Your task to perform on an android device: Do I have any events tomorrow? Image 0: 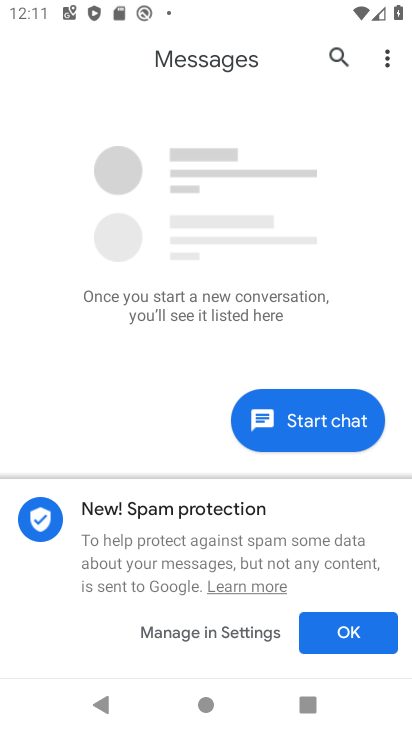
Step 0: press home button
Your task to perform on an android device: Do I have any events tomorrow? Image 1: 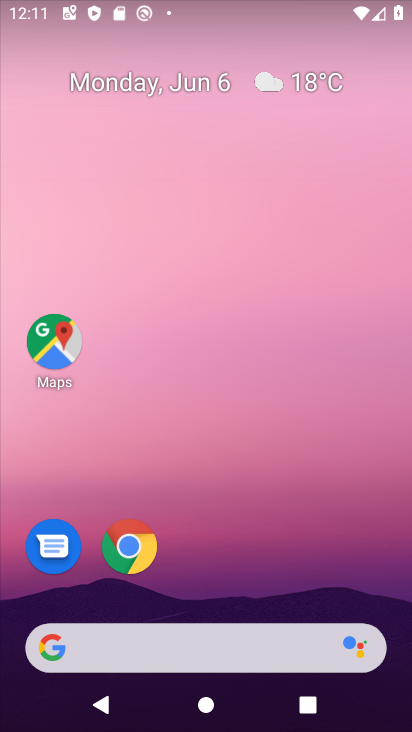
Step 1: drag from (146, 596) to (150, 11)
Your task to perform on an android device: Do I have any events tomorrow? Image 2: 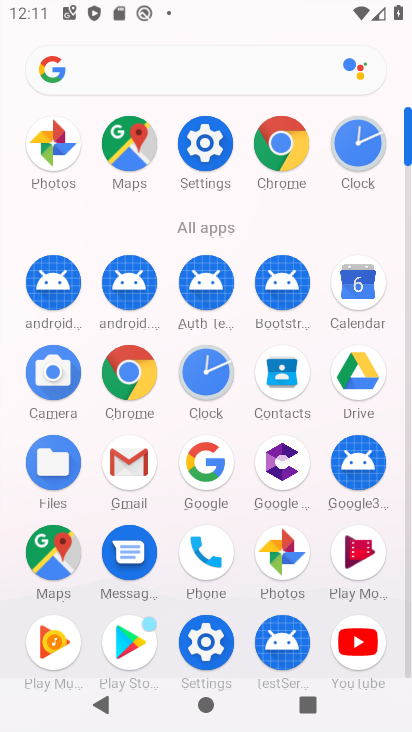
Step 2: click (364, 296)
Your task to perform on an android device: Do I have any events tomorrow? Image 3: 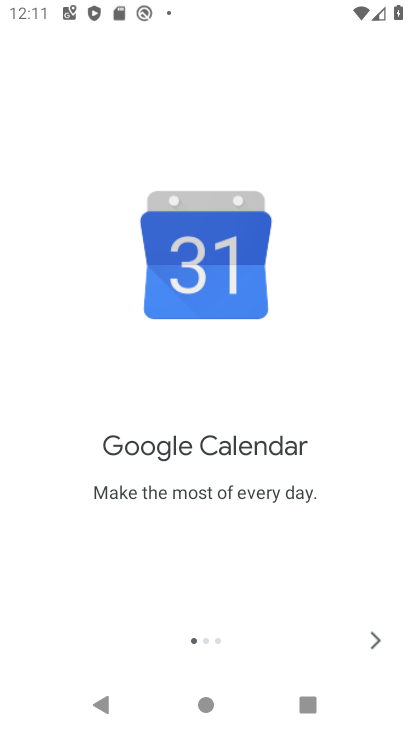
Step 3: click (367, 630)
Your task to perform on an android device: Do I have any events tomorrow? Image 4: 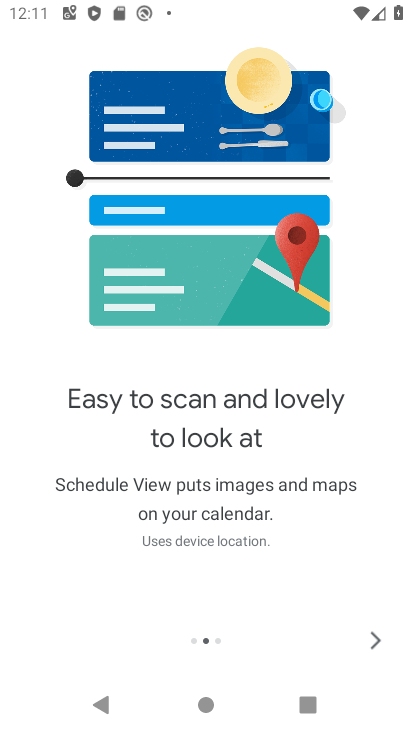
Step 4: click (372, 644)
Your task to perform on an android device: Do I have any events tomorrow? Image 5: 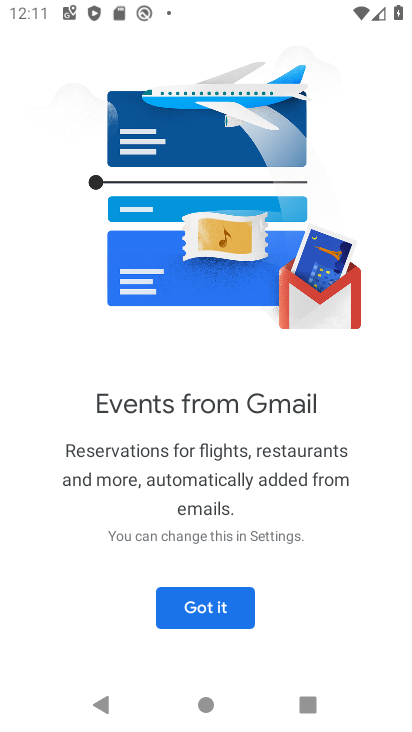
Step 5: click (222, 617)
Your task to perform on an android device: Do I have any events tomorrow? Image 6: 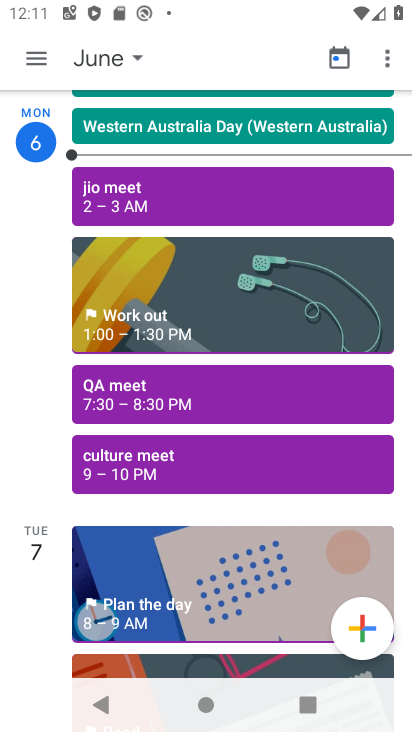
Step 6: click (38, 64)
Your task to perform on an android device: Do I have any events tomorrow? Image 7: 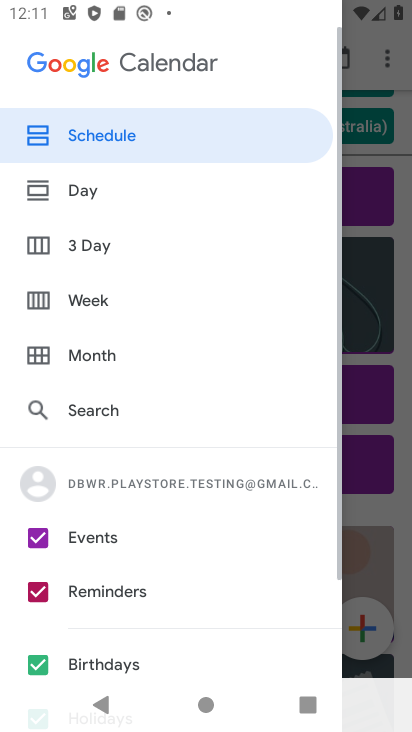
Step 7: click (35, 593)
Your task to perform on an android device: Do I have any events tomorrow? Image 8: 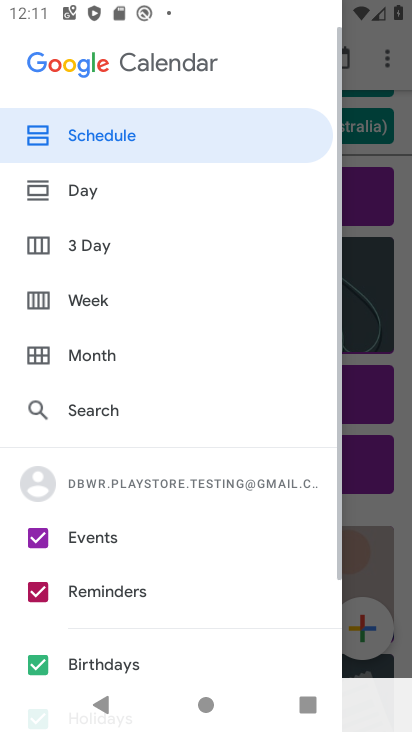
Step 8: click (30, 669)
Your task to perform on an android device: Do I have any events tomorrow? Image 9: 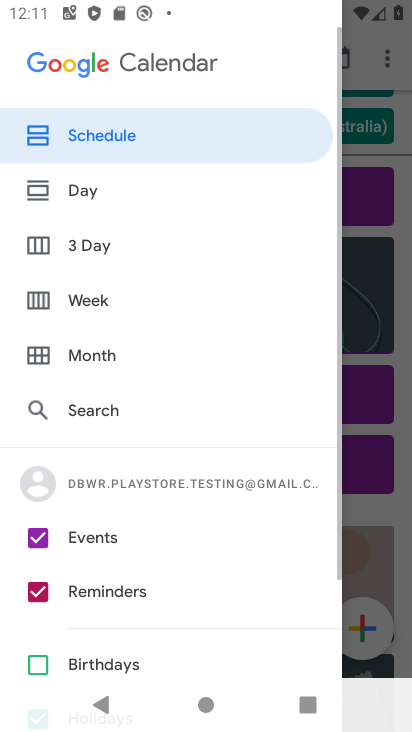
Step 9: click (38, 595)
Your task to perform on an android device: Do I have any events tomorrow? Image 10: 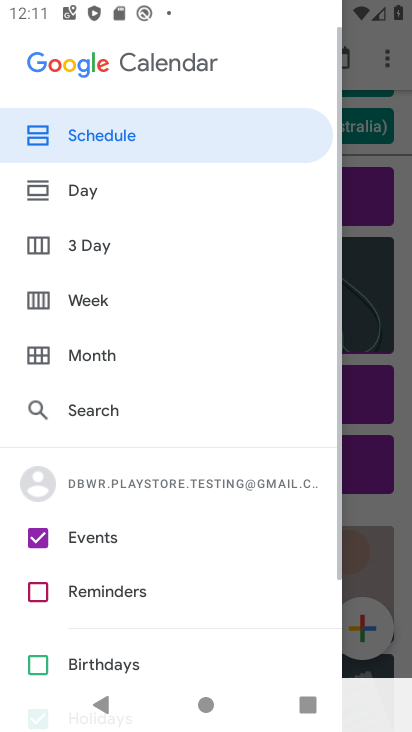
Step 10: drag from (231, 617) to (225, 420)
Your task to perform on an android device: Do I have any events tomorrow? Image 11: 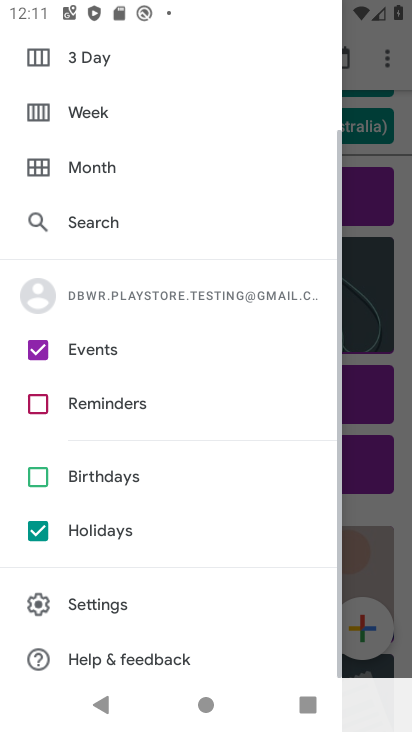
Step 11: click (36, 534)
Your task to perform on an android device: Do I have any events tomorrow? Image 12: 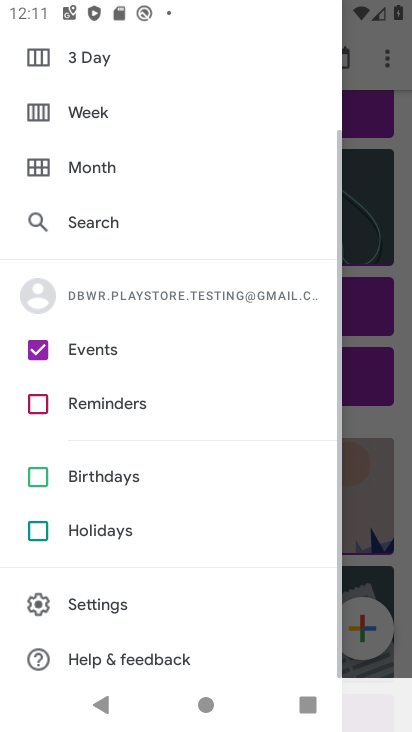
Step 12: drag from (184, 146) to (199, 538)
Your task to perform on an android device: Do I have any events tomorrow? Image 13: 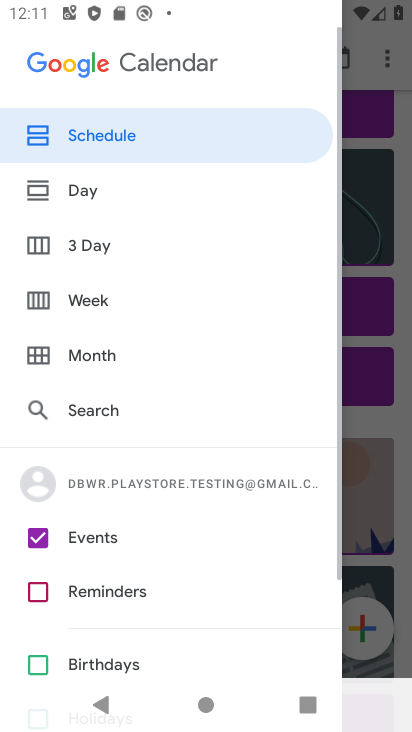
Step 13: click (102, 198)
Your task to perform on an android device: Do I have any events tomorrow? Image 14: 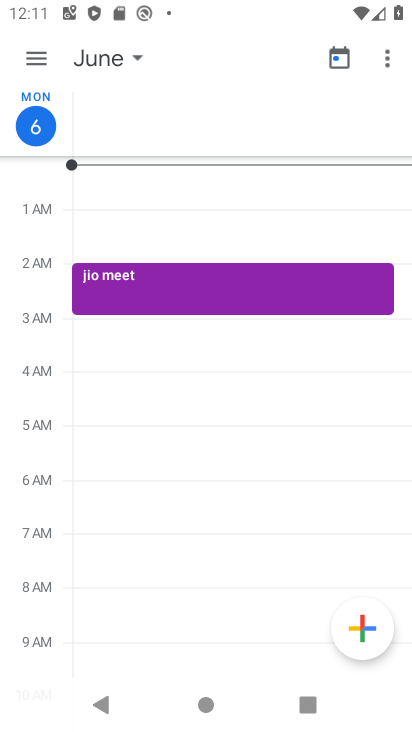
Step 14: drag from (261, 458) to (234, 225)
Your task to perform on an android device: Do I have any events tomorrow? Image 15: 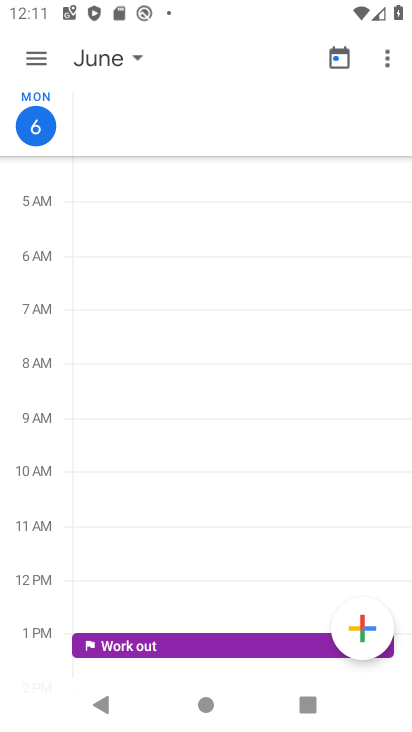
Step 15: drag from (250, 493) to (213, 245)
Your task to perform on an android device: Do I have any events tomorrow? Image 16: 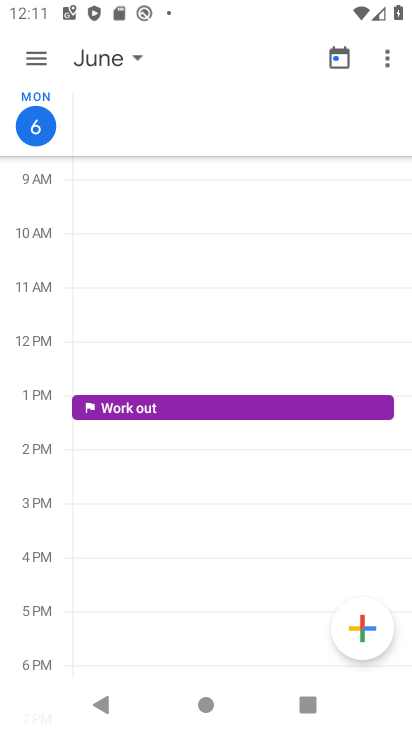
Step 16: click (130, 55)
Your task to perform on an android device: Do I have any events tomorrow? Image 17: 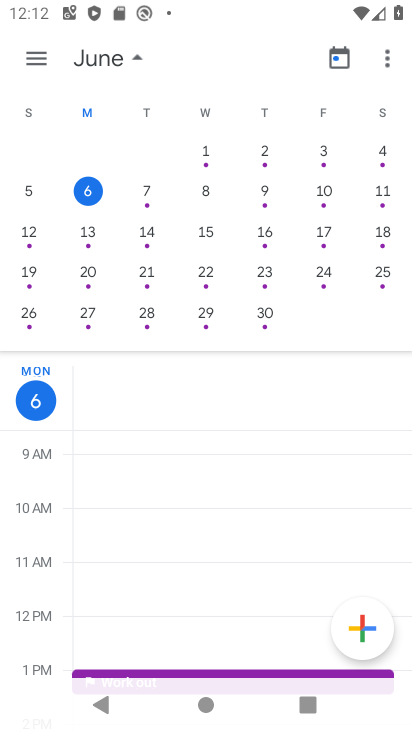
Step 17: click (148, 199)
Your task to perform on an android device: Do I have any events tomorrow? Image 18: 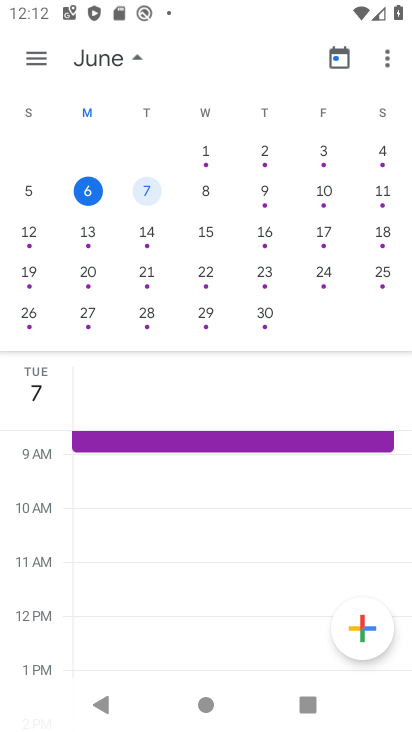
Step 18: click (139, 58)
Your task to perform on an android device: Do I have any events tomorrow? Image 19: 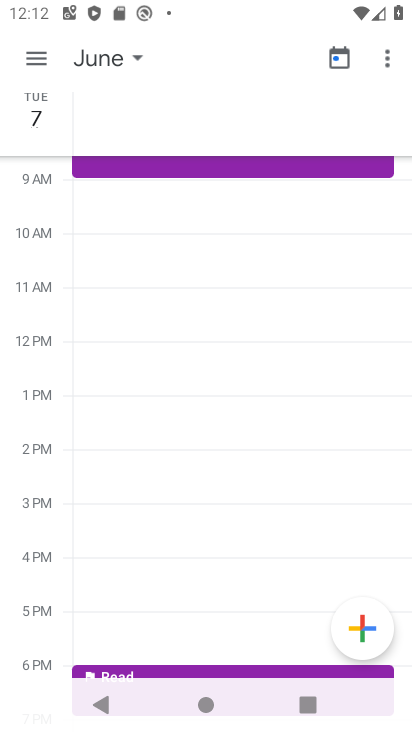
Step 19: click (248, 155)
Your task to perform on an android device: Do I have any events tomorrow? Image 20: 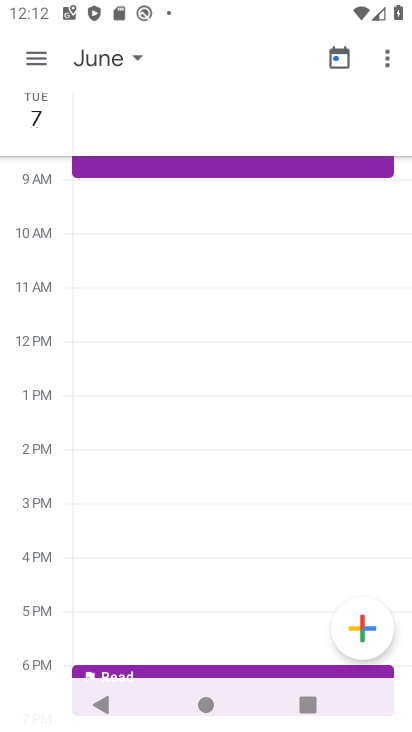
Step 20: click (266, 166)
Your task to perform on an android device: Do I have any events tomorrow? Image 21: 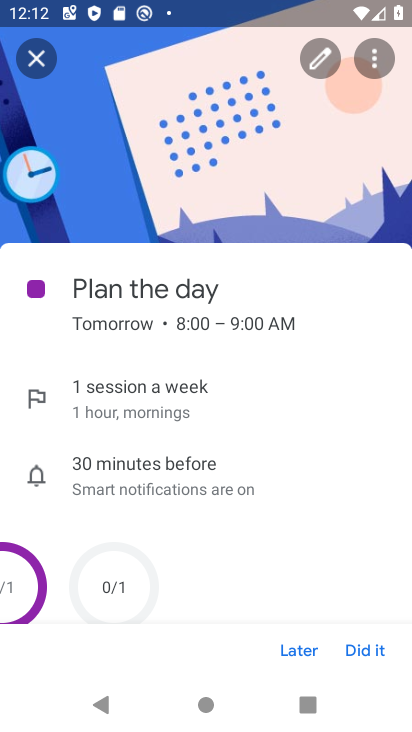
Step 21: task complete